Your task to perform on an android device: find photos in the google photos app Image 0: 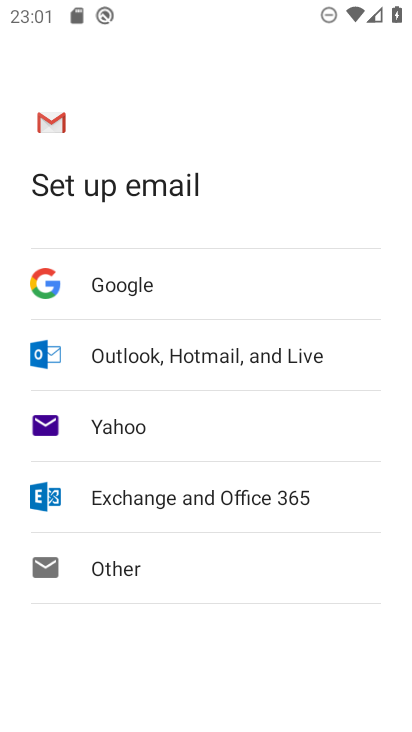
Step 0: press home button
Your task to perform on an android device: find photos in the google photos app Image 1: 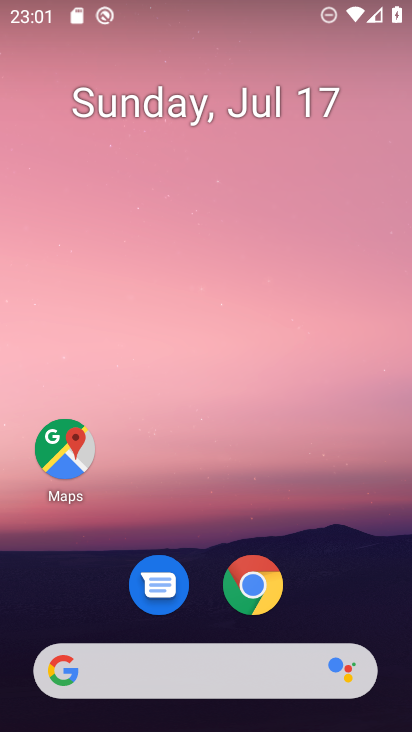
Step 1: drag from (219, 678) to (230, 29)
Your task to perform on an android device: find photos in the google photos app Image 2: 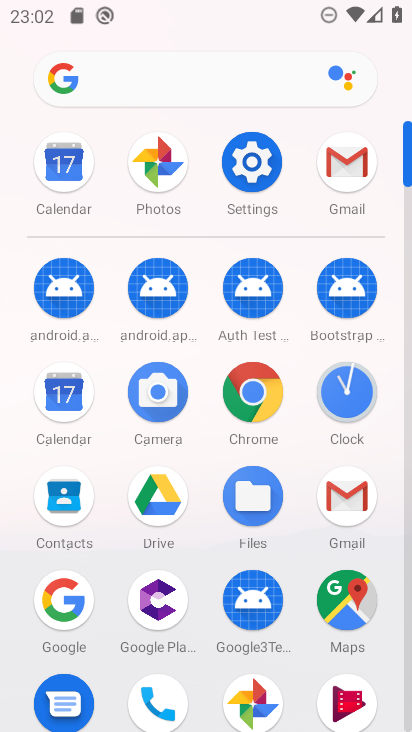
Step 2: click (154, 161)
Your task to perform on an android device: find photos in the google photos app Image 3: 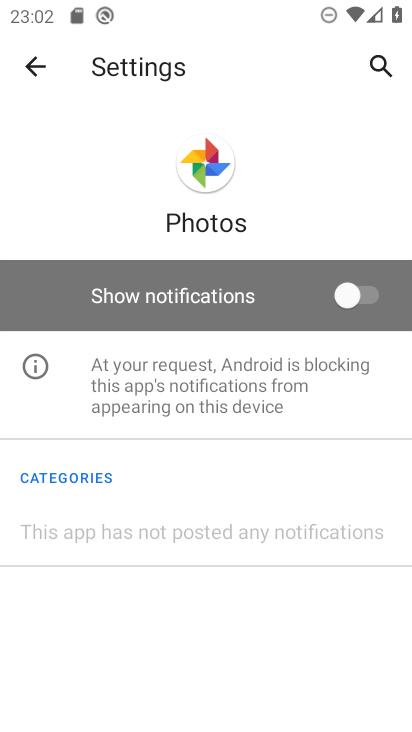
Step 3: click (38, 70)
Your task to perform on an android device: find photos in the google photos app Image 4: 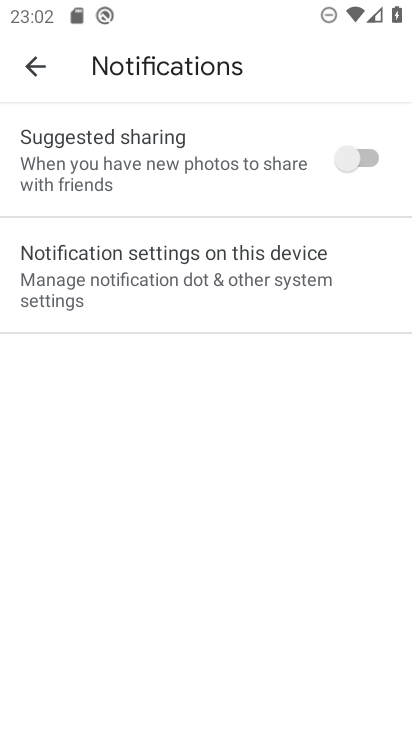
Step 4: click (43, 66)
Your task to perform on an android device: find photos in the google photos app Image 5: 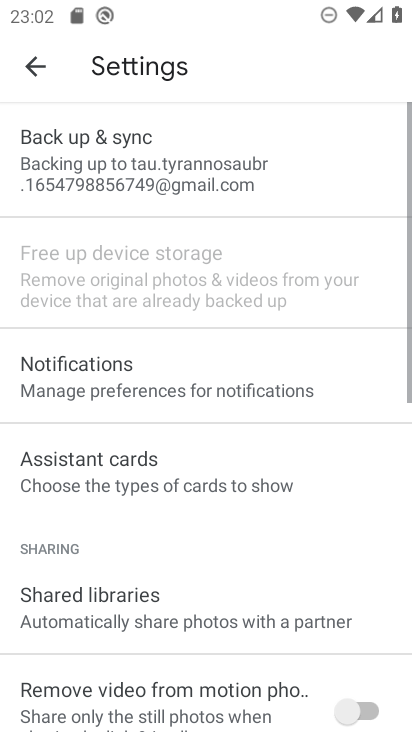
Step 5: click (43, 66)
Your task to perform on an android device: find photos in the google photos app Image 6: 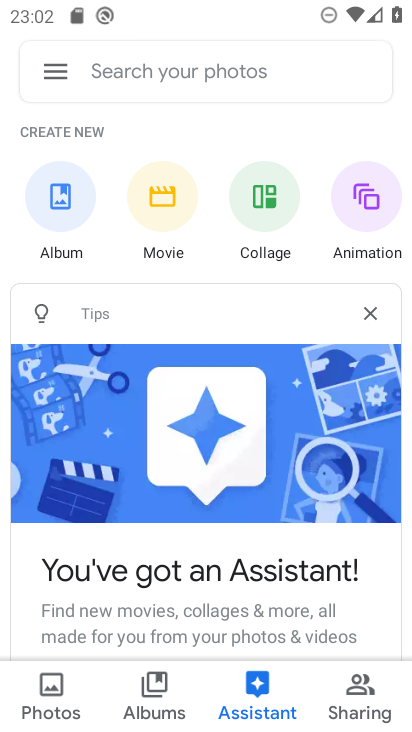
Step 6: click (49, 685)
Your task to perform on an android device: find photos in the google photos app Image 7: 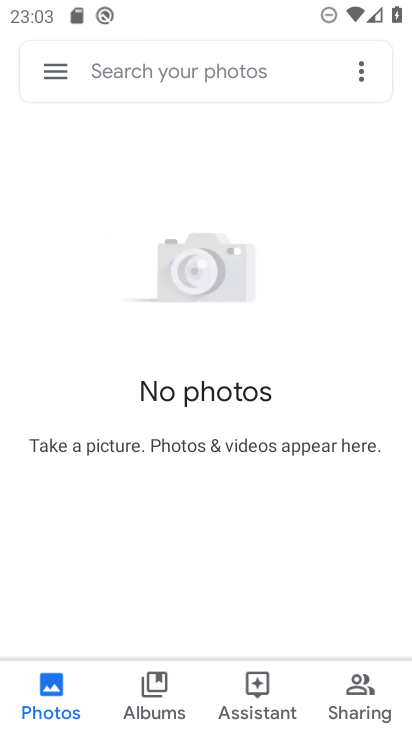
Step 7: task complete